Your task to perform on an android device: choose inbox layout in the gmail app Image 0: 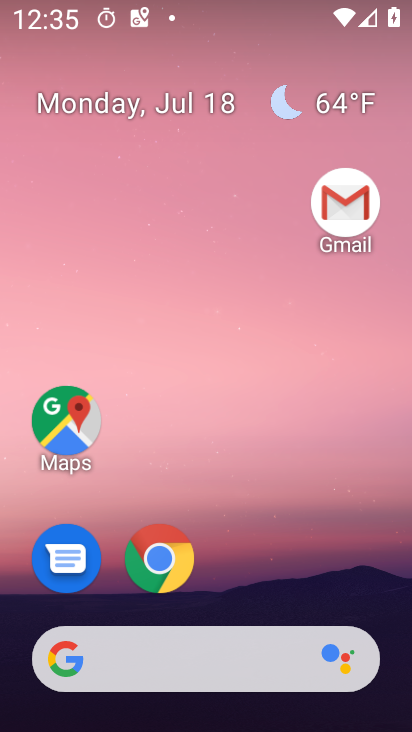
Step 0: drag from (331, 570) to (372, 106)
Your task to perform on an android device: choose inbox layout in the gmail app Image 1: 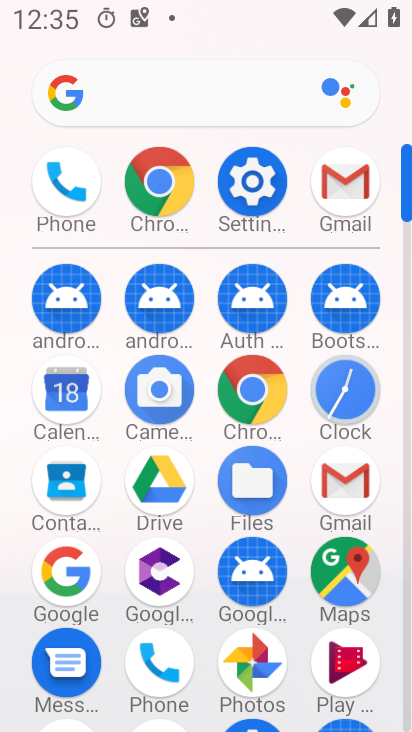
Step 1: click (360, 484)
Your task to perform on an android device: choose inbox layout in the gmail app Image 2: 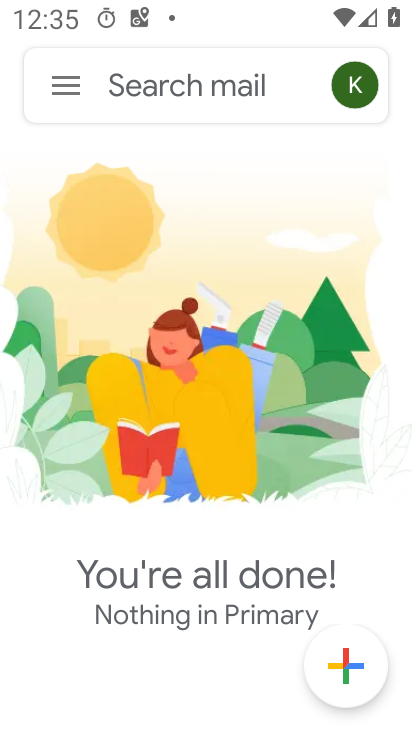
Step 2: click (58, 89)
Your task to perform on an android device: choose inbox layout in the gmail app Image 3: 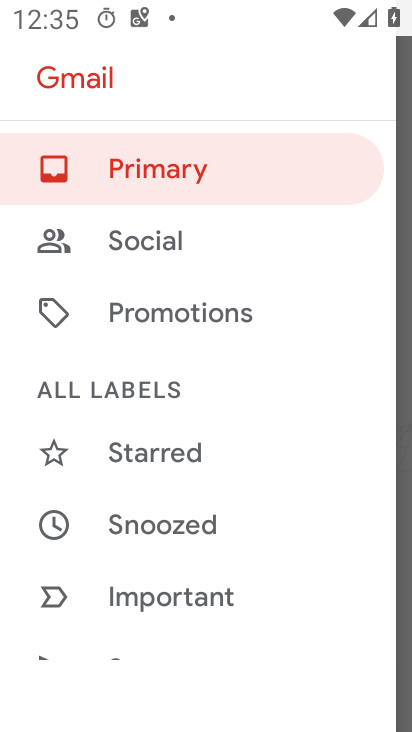
Step 3: drag from (306, 593) to (308, 448)
Your task to perform on an android device: choose inbox layout in the gmail app Image 4: 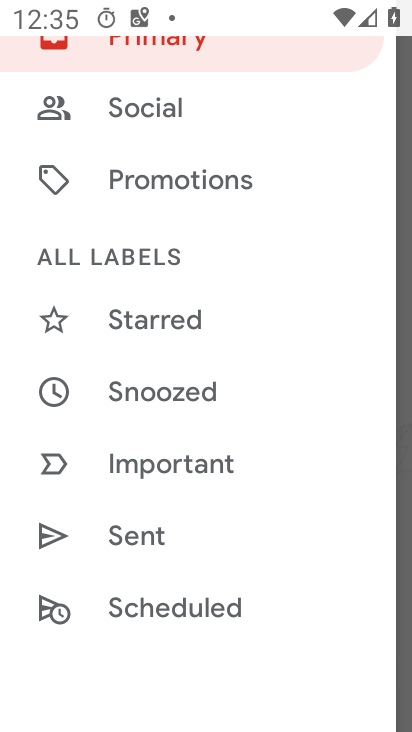
Step 4: drag from (291, 586) to (295, 444)
Your task to perform on an android device: choose inbox layout in the gmail app Image 5: 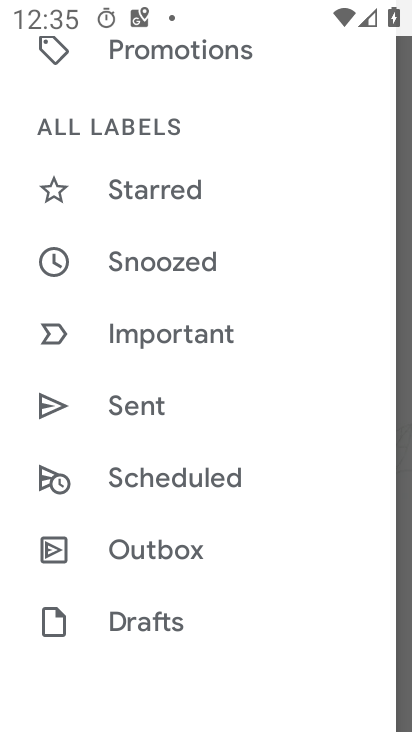
Step 5: drag from (296, 562) to (301, 391)
Your task to perform on an android device: choose inbox layout in the gmail app Image 6: 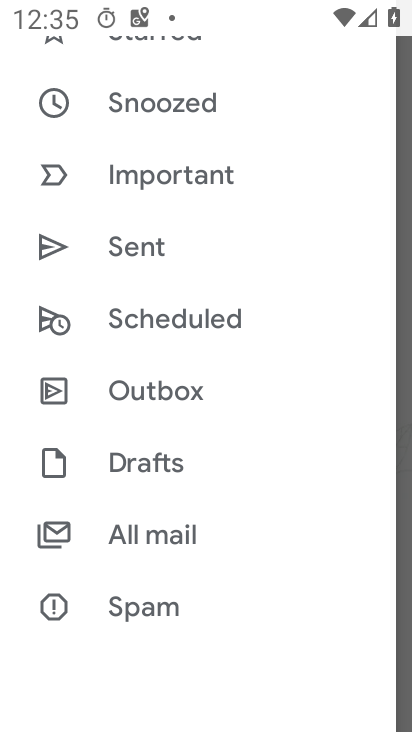
Step 6: drag from (317, 530) to (311, 409)
Your task to perform on an android device: choose inbox layout in the gmail app Image 7: 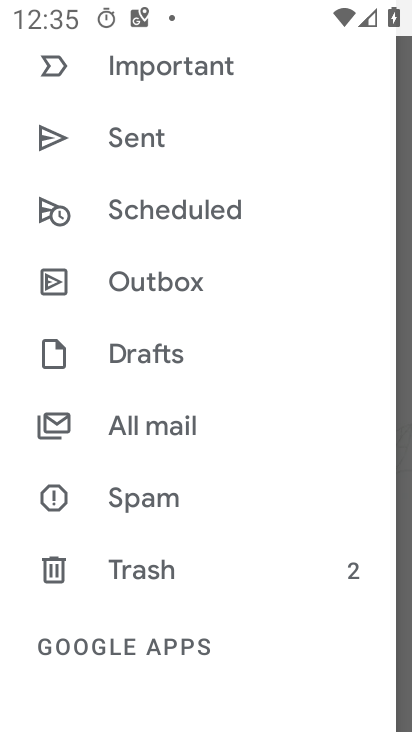
Step 7: drag from (275, 578) to (285, 443)
Your task to perform on an android device: choose inbox layout in the gmail app Image 8: 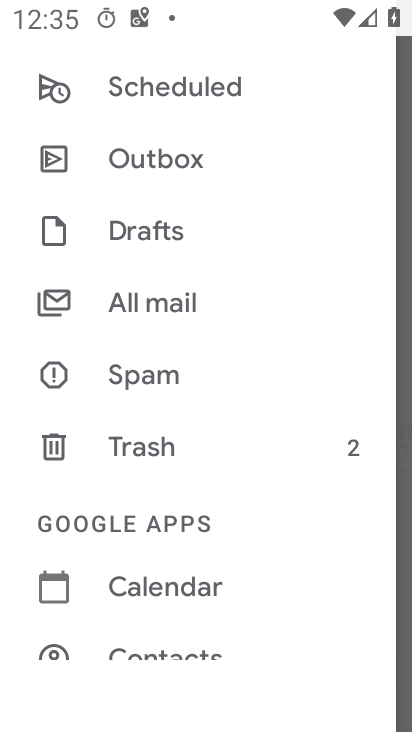
Step 8: drag from (269, 480) to (272, 422)
Your task to perform on an android device: choose inbox layout in the gmail app Image 9: 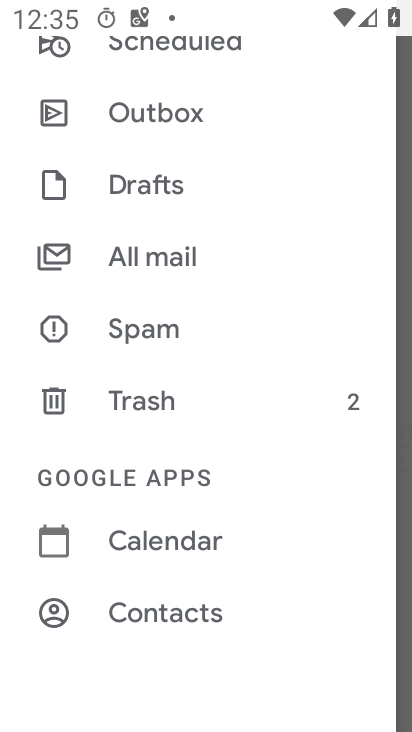
Step 9: drag from (279, 580) to (288, 407)
Your task to perform on an android device: choose inbox layout in the gmail app Image 10: 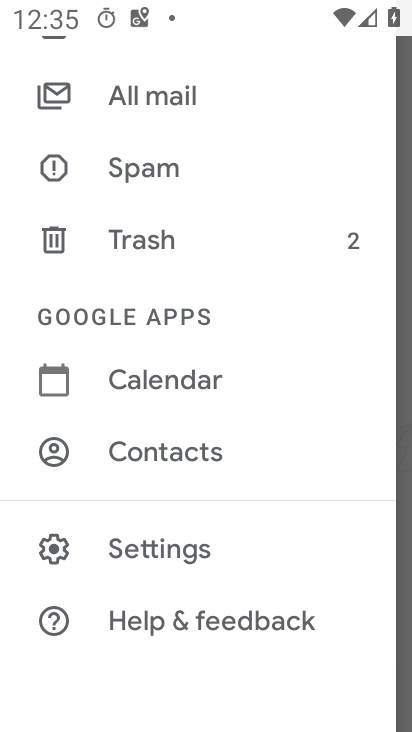
Step 10: click (228, 566)
Your task to perform on an android device: choose inbox layout in the gmail app Image 11: 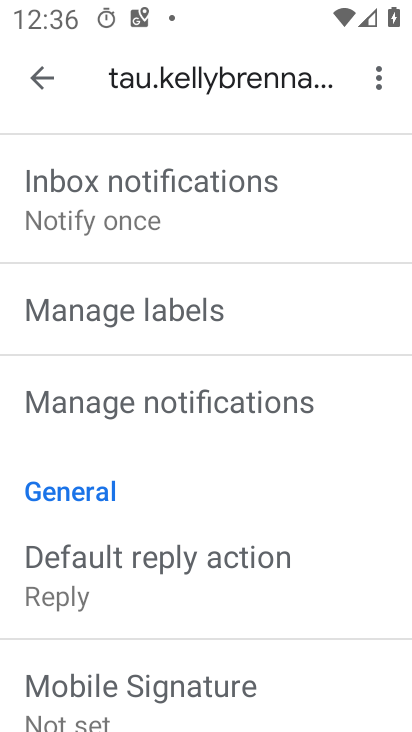
Step 11: drag from (335, 223) to (349, 394)
Your task to perform on an android device: choose inbox layout in the gmail app Image 12: 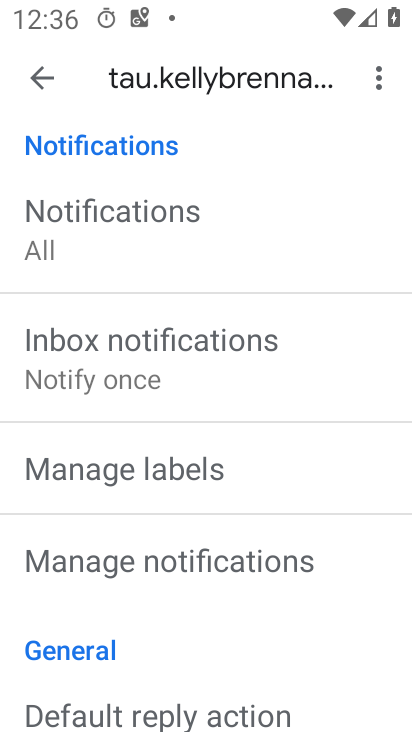
Step 12: drag from (338, 205) to (345, 384)
Your task to perform on an android device: choose inbox layout in the gmail app Image 13: 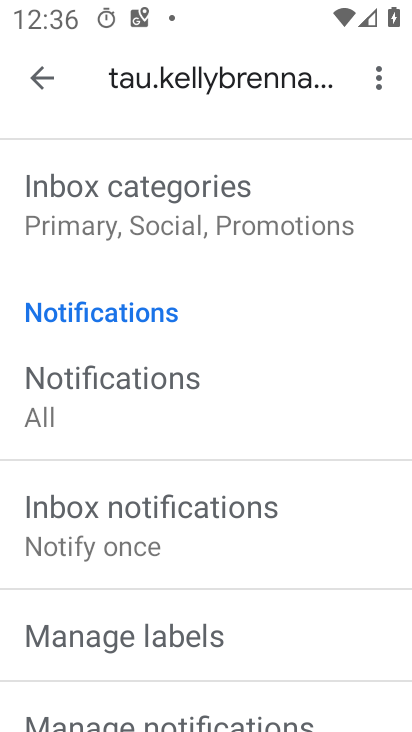
Step 13: drag from (343, 183) to (165, 294)
Your task to perform on an android device: choose inbox layout in the gmail app Image 14: 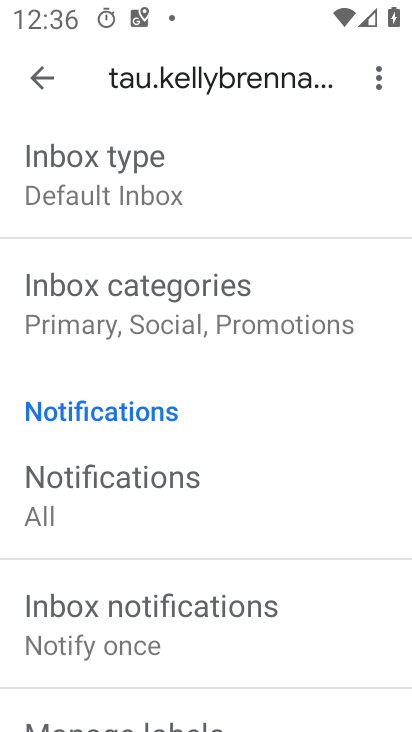
Step 14: click (143, 176)
Your task to perform on an android device: choose inbox layout in the gmail app Image 15: 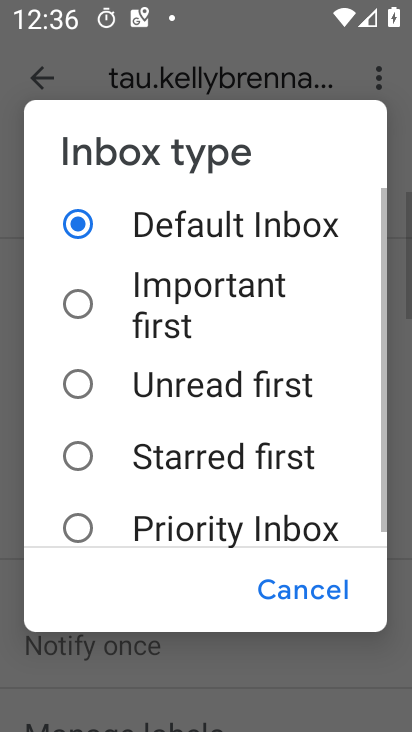
Step 15: click (179, 320)
Your task to perform on an android device: choose inbox layout in the gmail app Image 16: 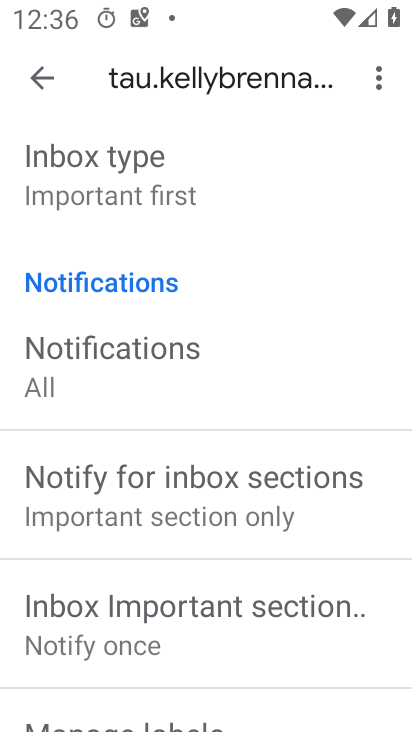
Step 16: task complete